Your task to perform on an android device: refresh tabs in the chrome app Image 0: 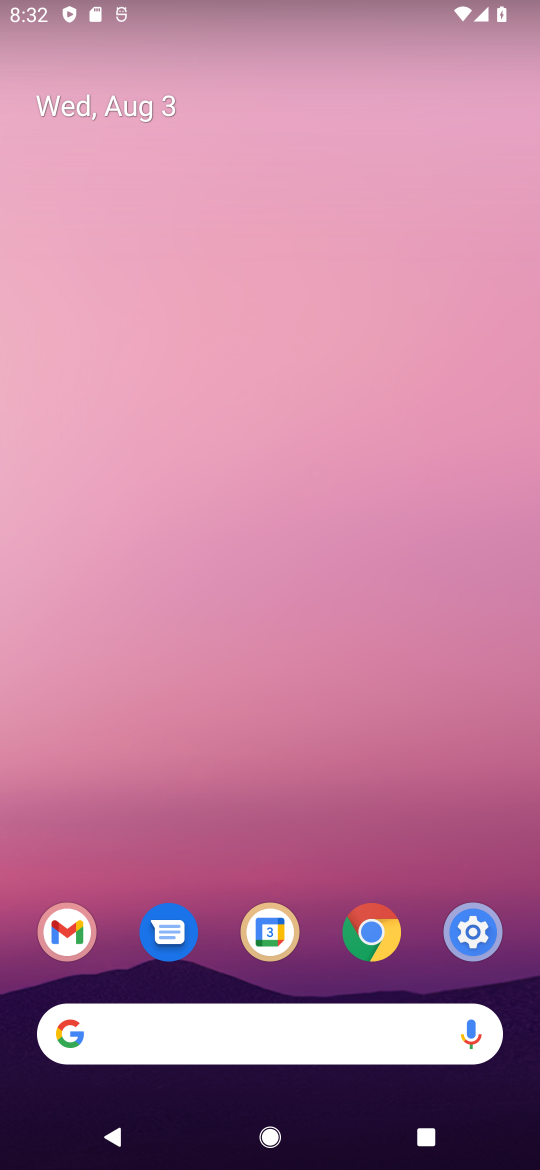
Step 0: click (392, 951)
Your task to perform on an android device: refresh tabs in the chrome app Image 1: 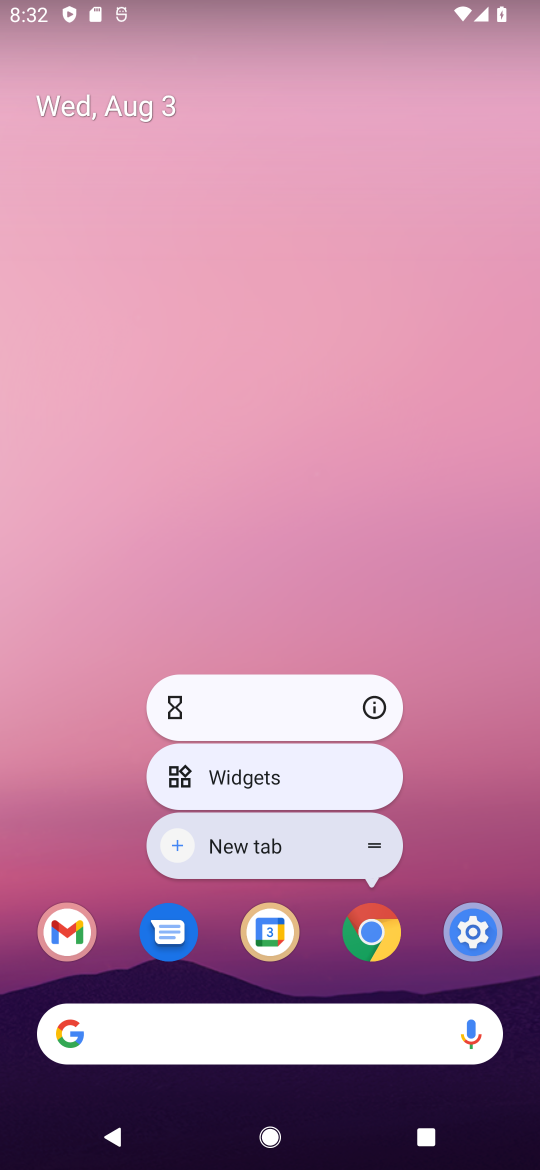
Step 1: click (371, 934)
Your task to perform on an android device: refresh tabs in the chrome app Image 2: 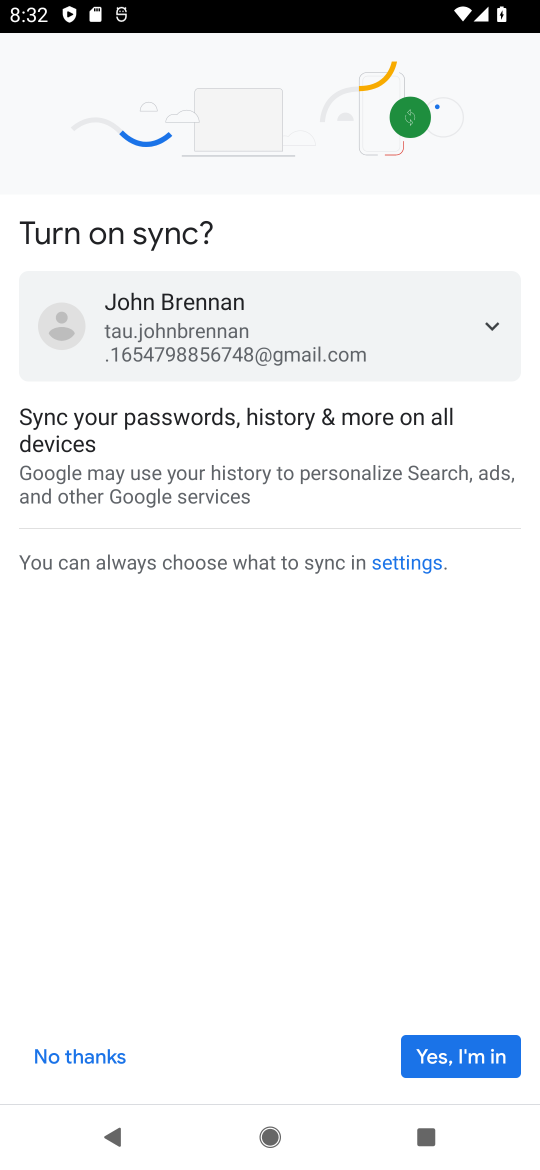
Step 2: click (449, 1056)
Your task to perform on an android device: refresh tabs in the chrome app Image 3: 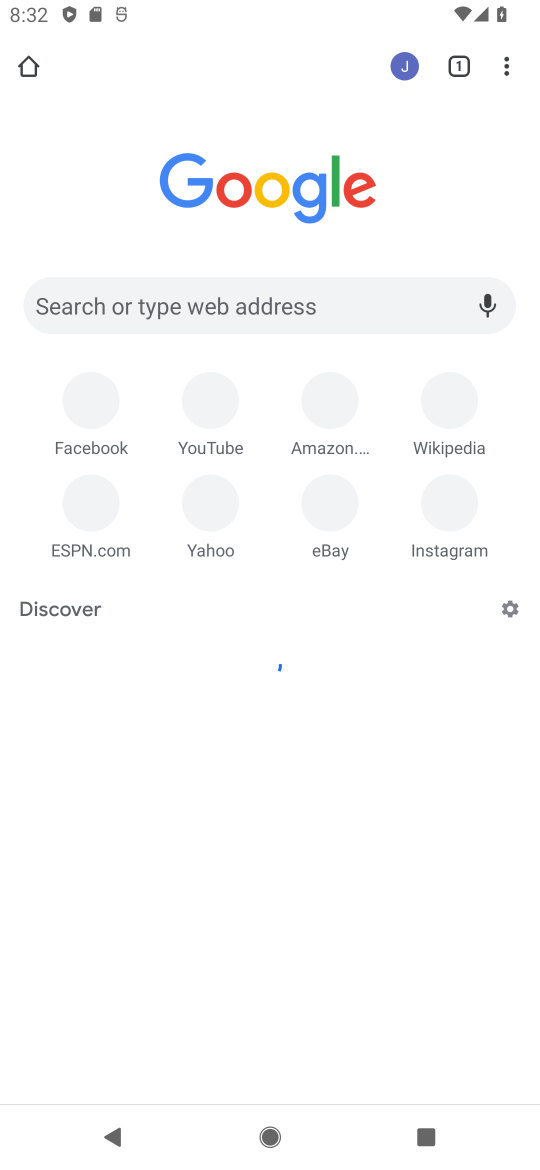
Step 3: click (505, 76)
Your task to perform on an android device: refresh tabs in the chrome app Image 4: 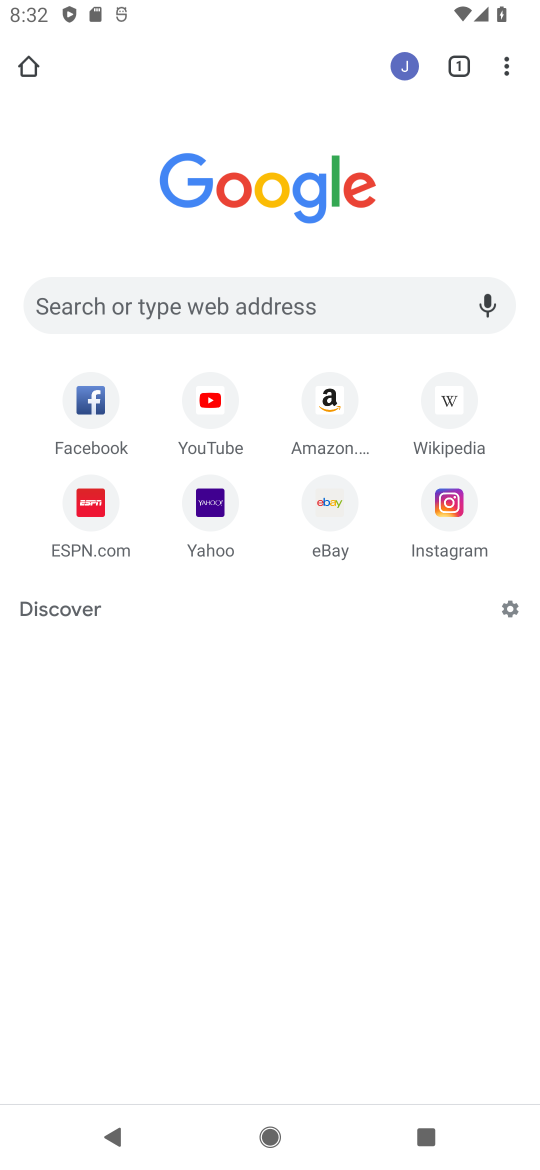
Step 4: click (517, 69)
Your task to perform on an android device: refresh tabs in the chrome app Image 5: 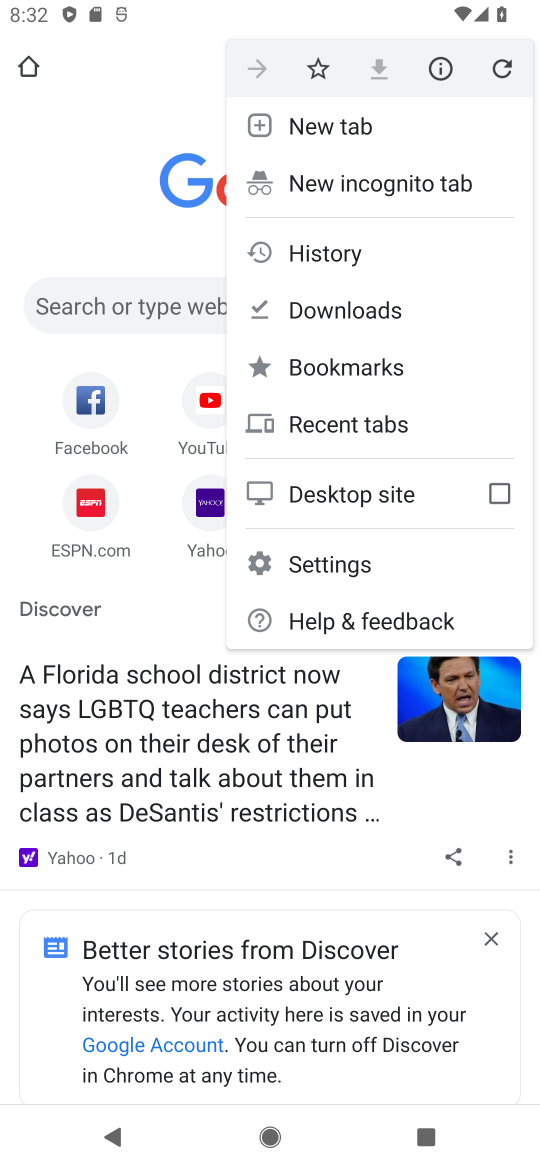
Step 5: click (503, 61)
Your task to perform on an android device: refresh tabs in the chrome app Image 6: 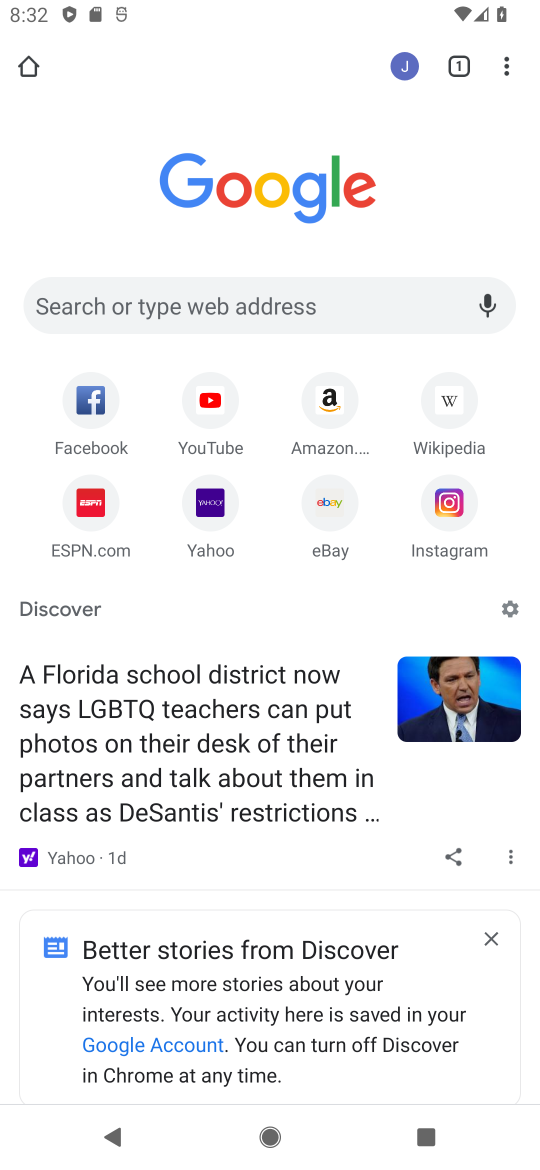
Step 6: click (507, 59)
Your task to perform on an android device: refresh tabs in the chrome app Image 7: 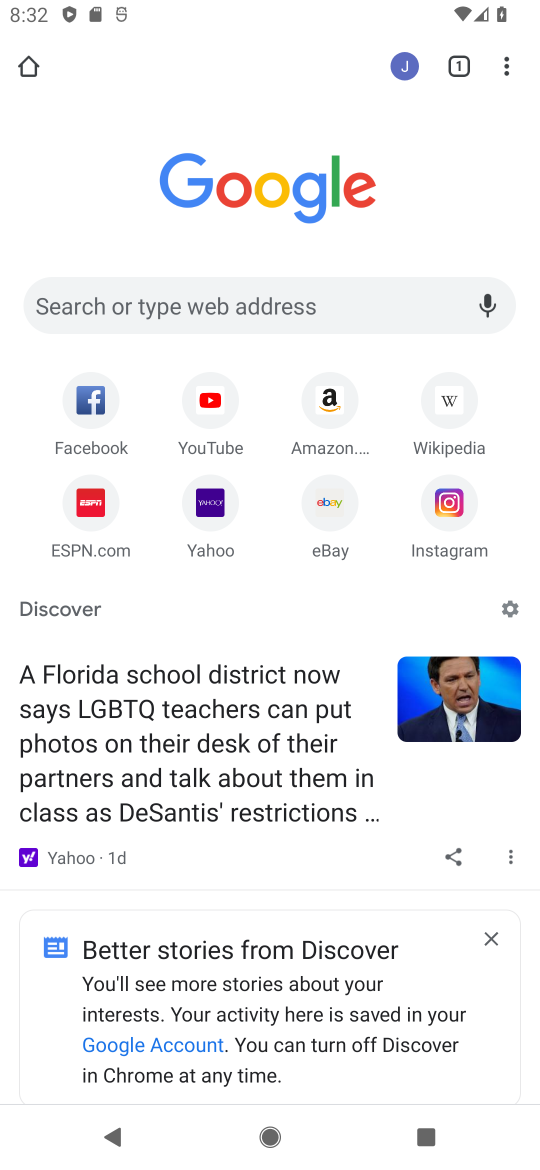
Step 7: click (505, 65)
Your task to perform on an android device: refresh tabs in the chrome app Image 8: 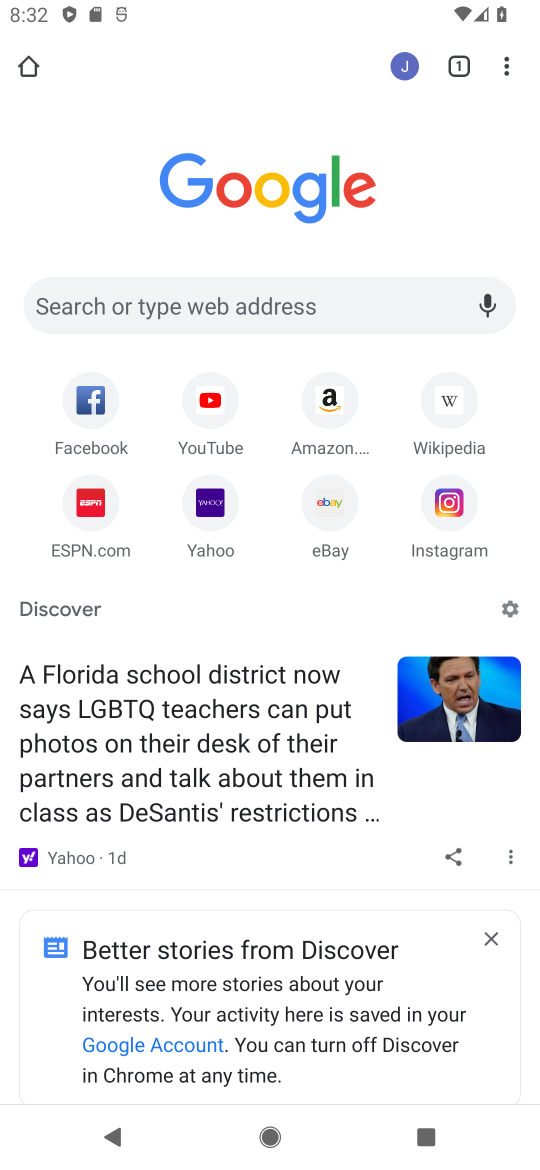
Step 8: click (511, 69)
Your task to perform on an android device: refresh tabs in the chrome app Image 9: 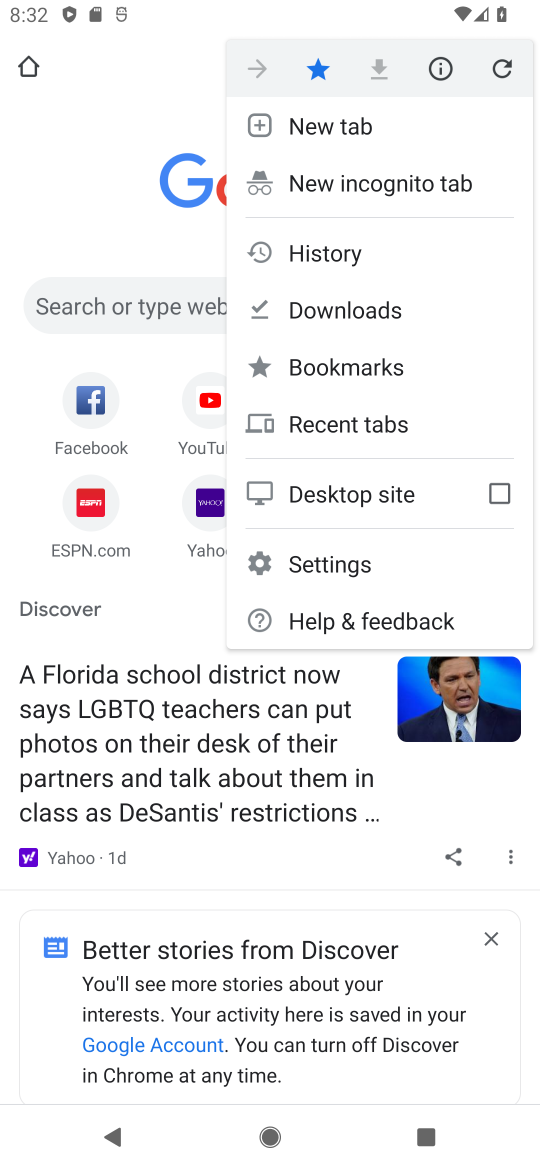
Step 9: click (503, 64)
Your task to perform on an android device: refresh tabs in the chrome app Image 10: 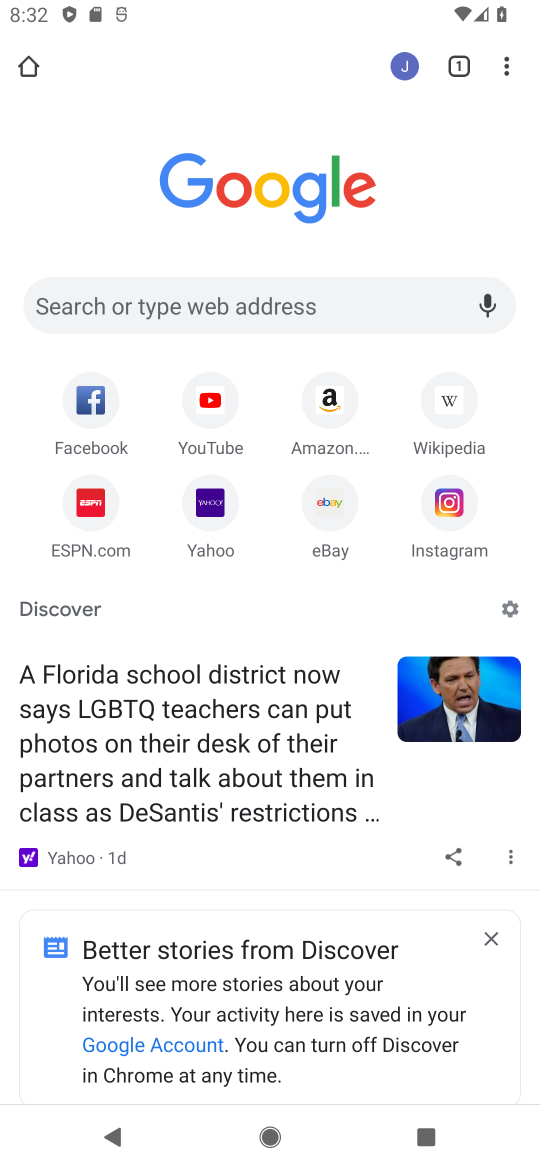
Step 10: task complete